Your task to perform on an android device: Add usb-c to the cart on target, then select checkout. Image 0: 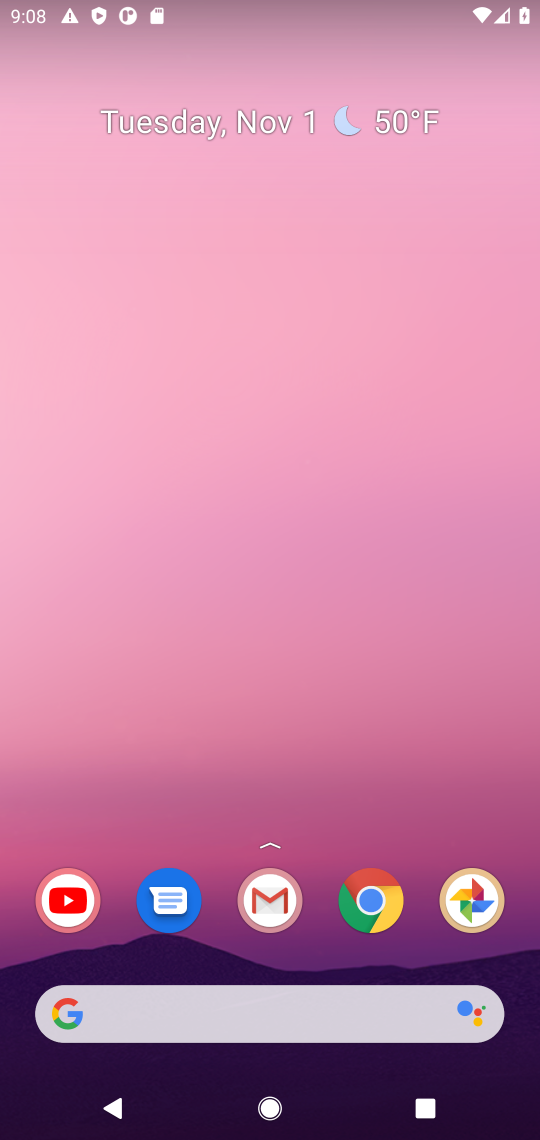
Step 0: click (387, 897)
Your task to perform on an android device: Add usb-c to the cart on target, then select checkout. Image 1: 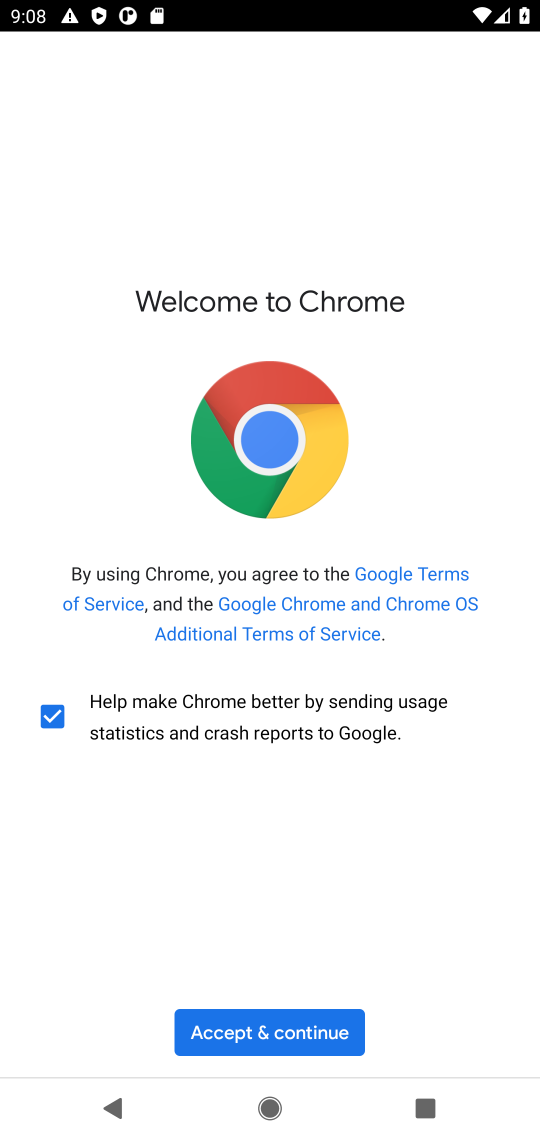
Step 1: click (309, 1014)
Your task to perform on an android device: Add usb-c to the cart on target, then select checkout. Image 2: 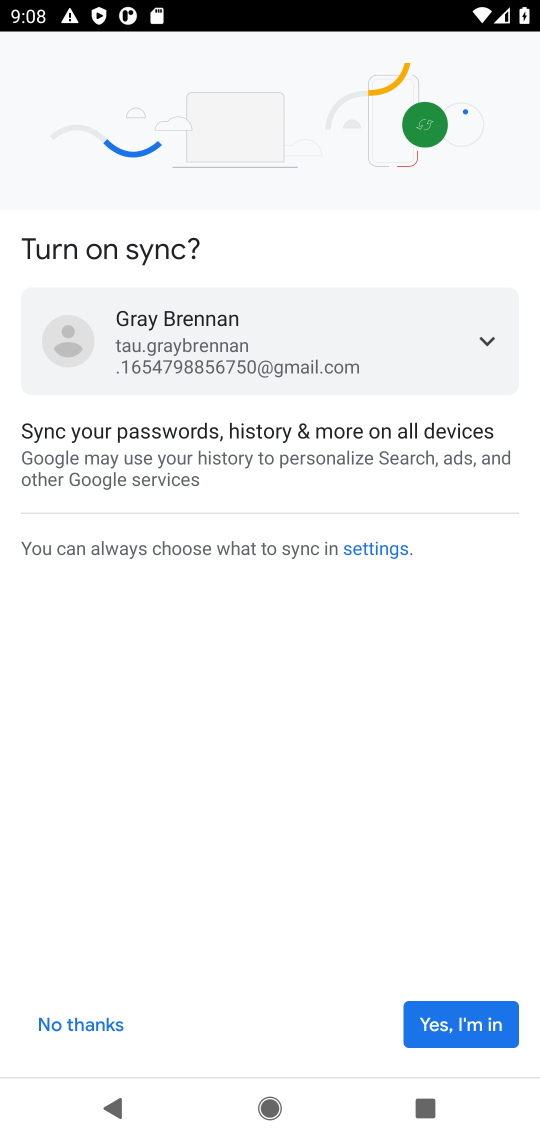
Step 2: click (408, 1028)
Your task to perform on an android device: Add usb-c to the cart on target, then select checkout. Image 3: 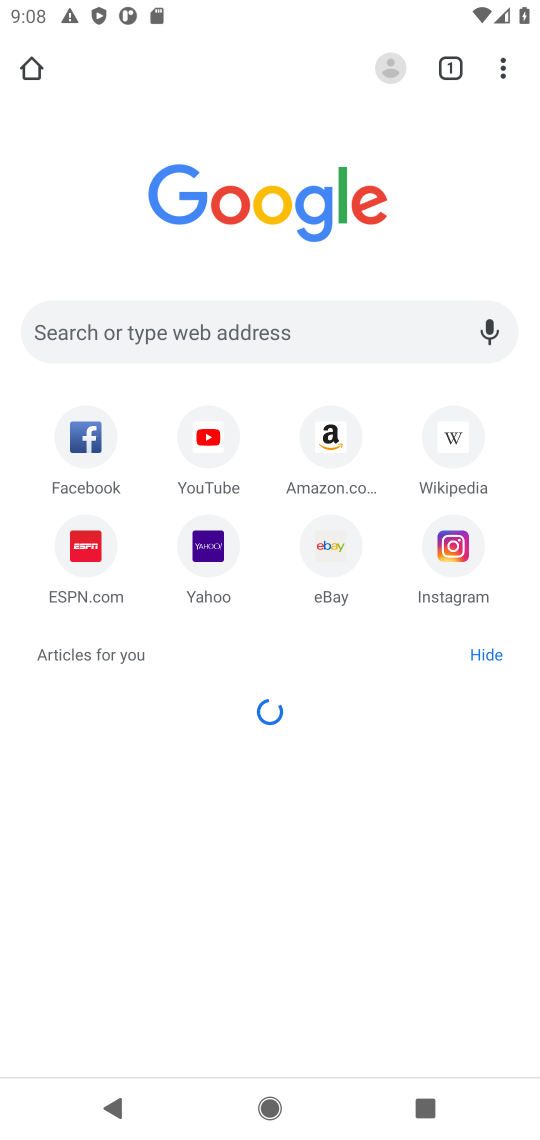
Step 3: click (148, 345)
Your task to perform on an android device: Add usb-c to the cart on target, then select checkout. Image 4: 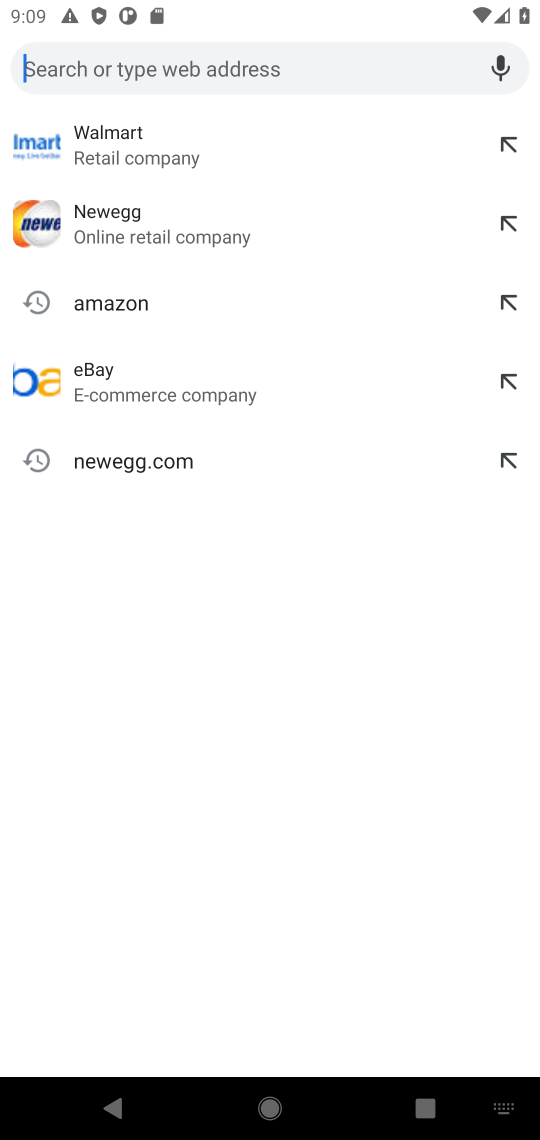
Step 4: type "target"
Your task to perform on an android device: Add usb-c to the cart on target, then select checkout. Image 5: 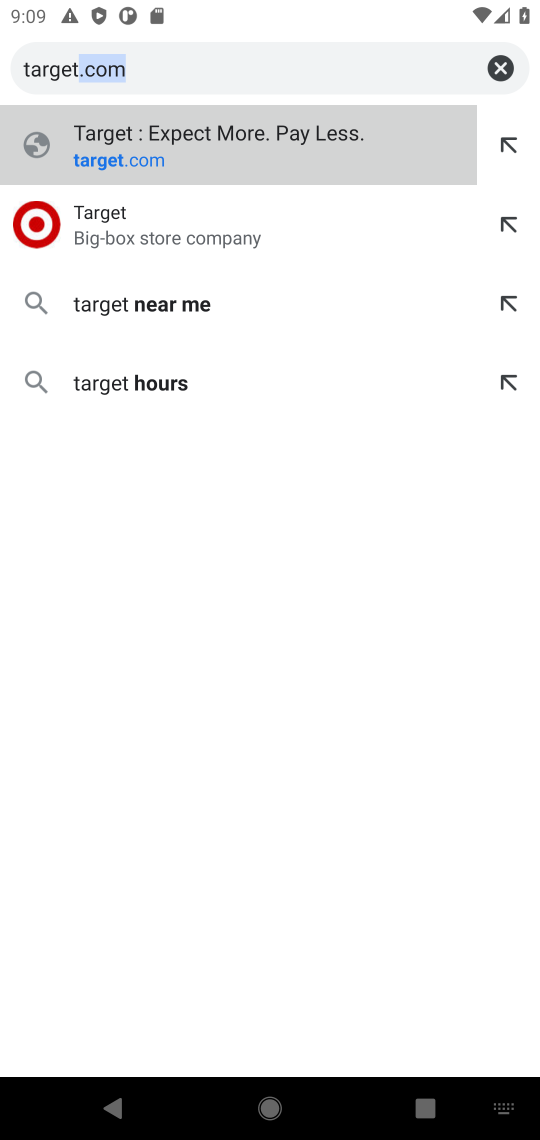
Step 5: click (209, 245)
Your task to perform on an android device: Add usb-c to the cart on target, then select checkout. Image 6: 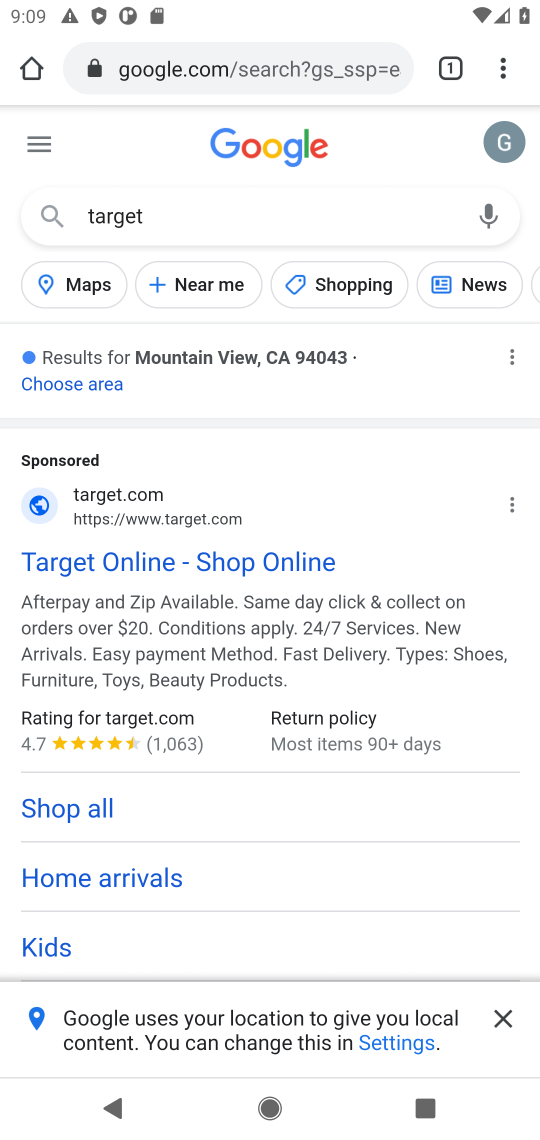
Step 6: click (160, 556)
Your task to perform on an android device: Add usb-c to the cart on target, then select checkout. Image 7: 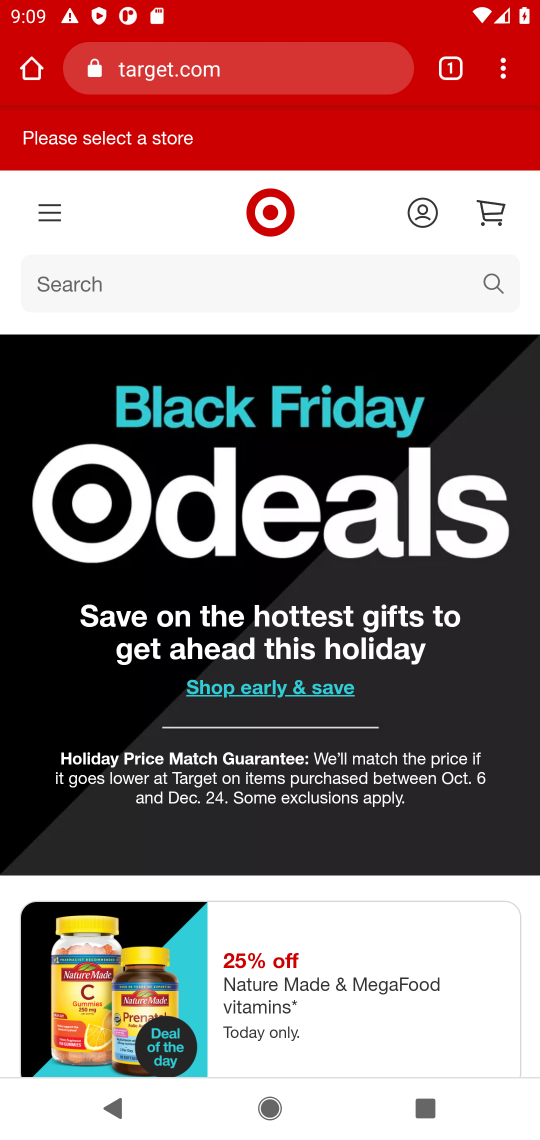
Step 7: click (206, 286)
Your task to perform on an android device: Add usb-c to the cart on target, then select checkout. Image 8: 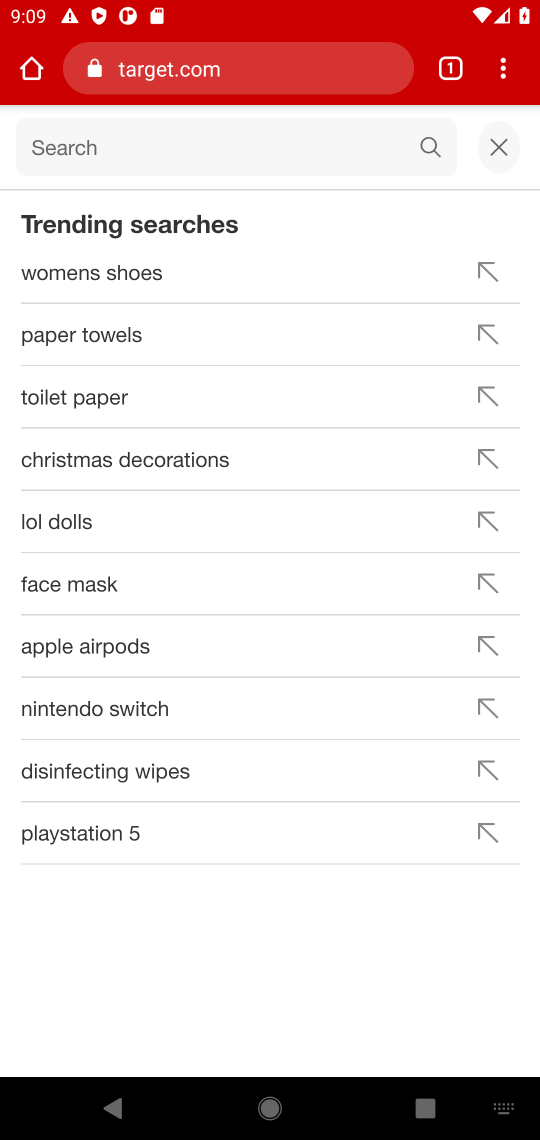
Step 8: type "usb-c"
Your task to perform on an android device: Add usb-c to the cart on target, then select checkout. Image 9: 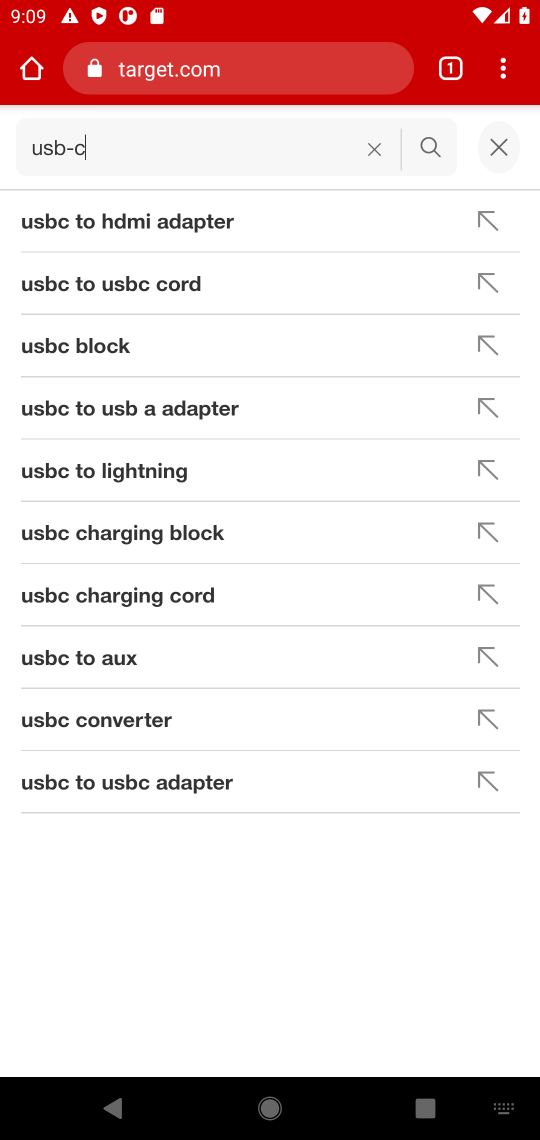
Step 9: click (425, 145)
Your task to perform on an android device: Add usb-c to the cart on target, then select checkout. Image 10: 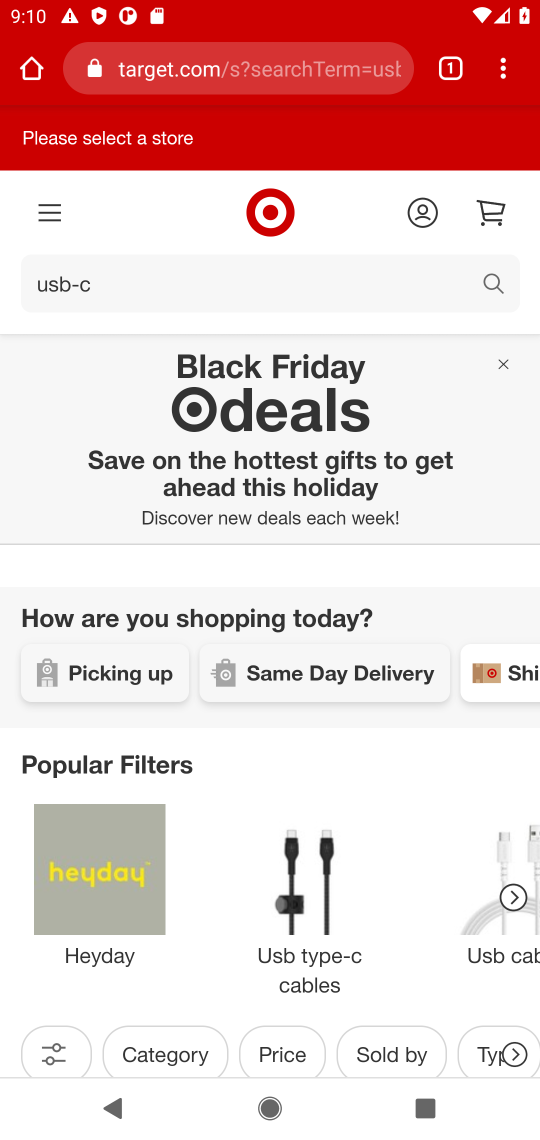
Step 10: drag from (236, 771) to (281, 344)
Your task to perform on an android device: Add usb-c to the cart on target, then select checkout. Image 11: 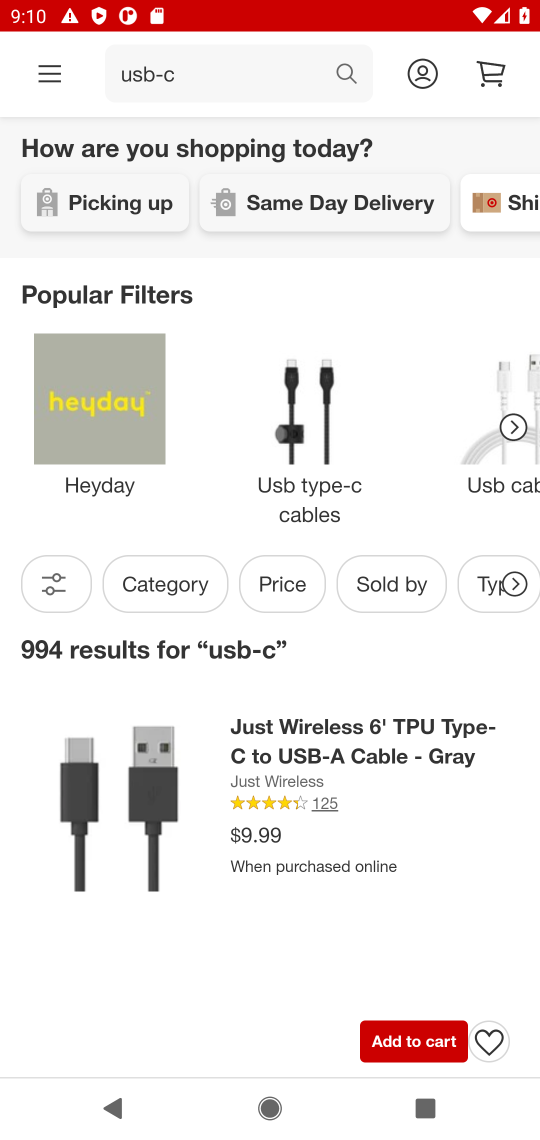
Step 11: click (295, 510)
Your task to perform on an android device: Add usb-c to the cart on target, then select checkout. Image 12: 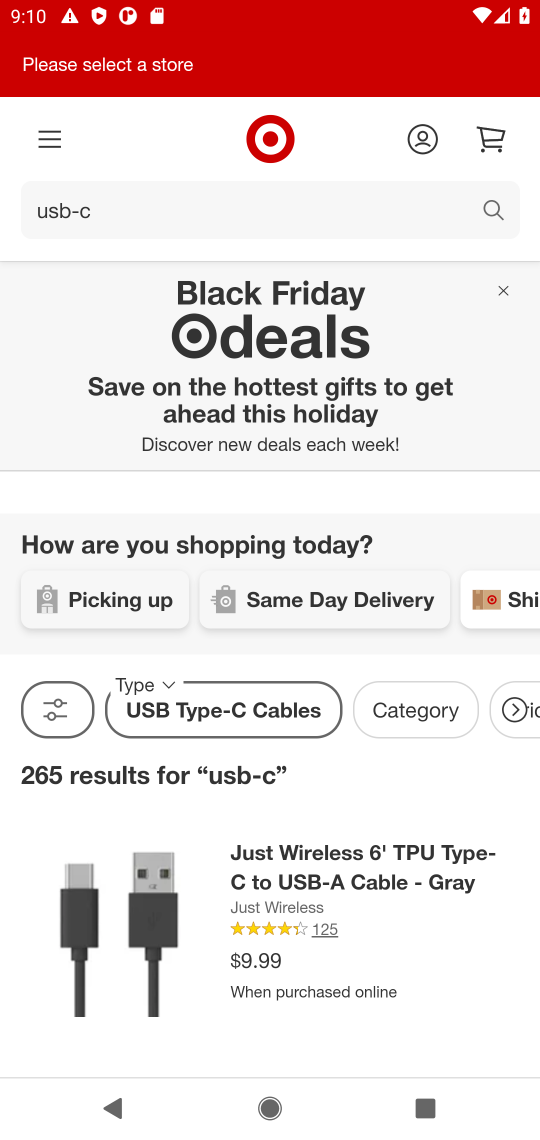
Step 12: click (419, 860)
Your task to perform on an android device: Add usb-c to the cart on target, then select checkout. Image 13: 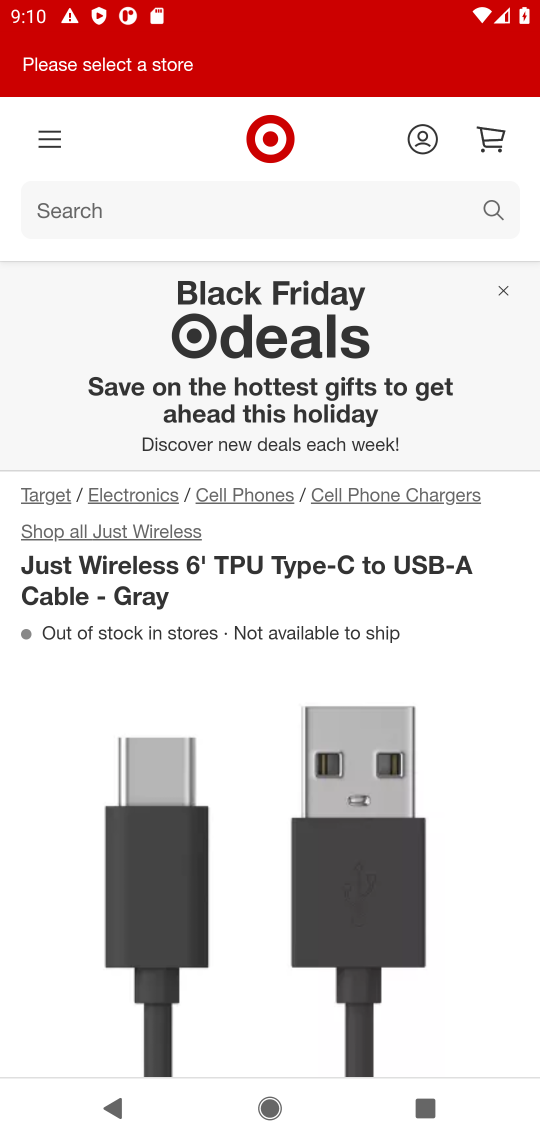
Step 13: drag from (419, 860) to (451, 483)
Your task to perform on an android device: Add usb-c to the cart on target, then select checkout. Image 14: 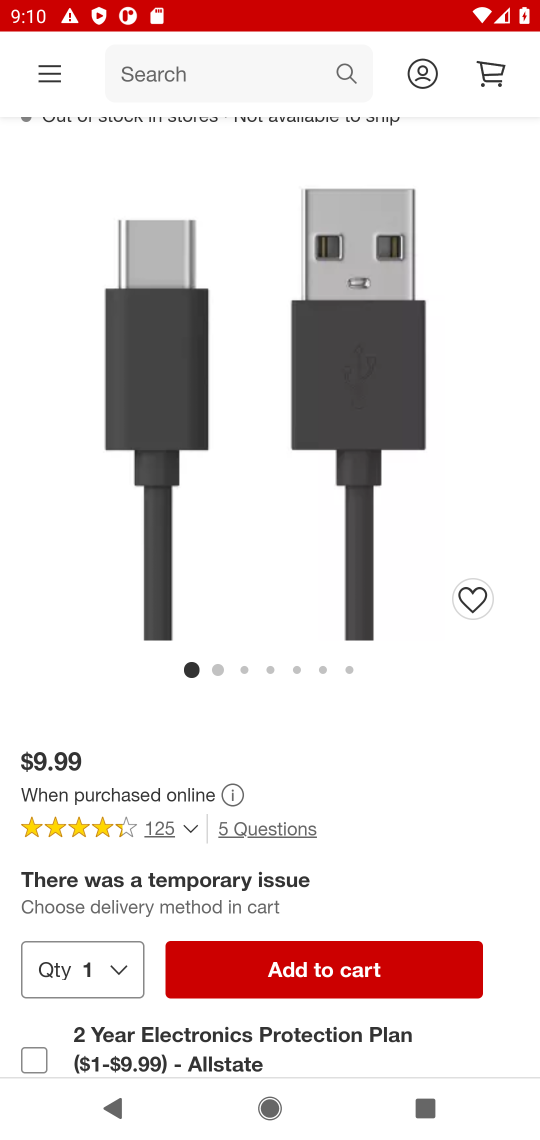
Step 14: click (336, 958)
Your task to perform on an android device: Add usb-c to the cart on target, then select checkout. Image 15: 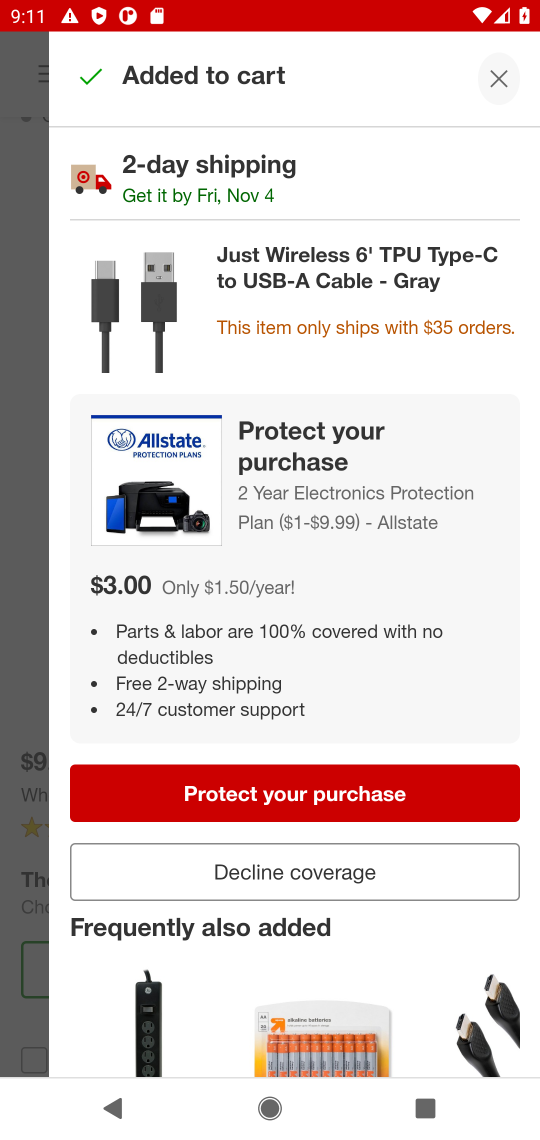
Step 15: click (498, 79)
Your task to perform on an android device: Add usb-c to the cart on target, then select checkout. Image 16: 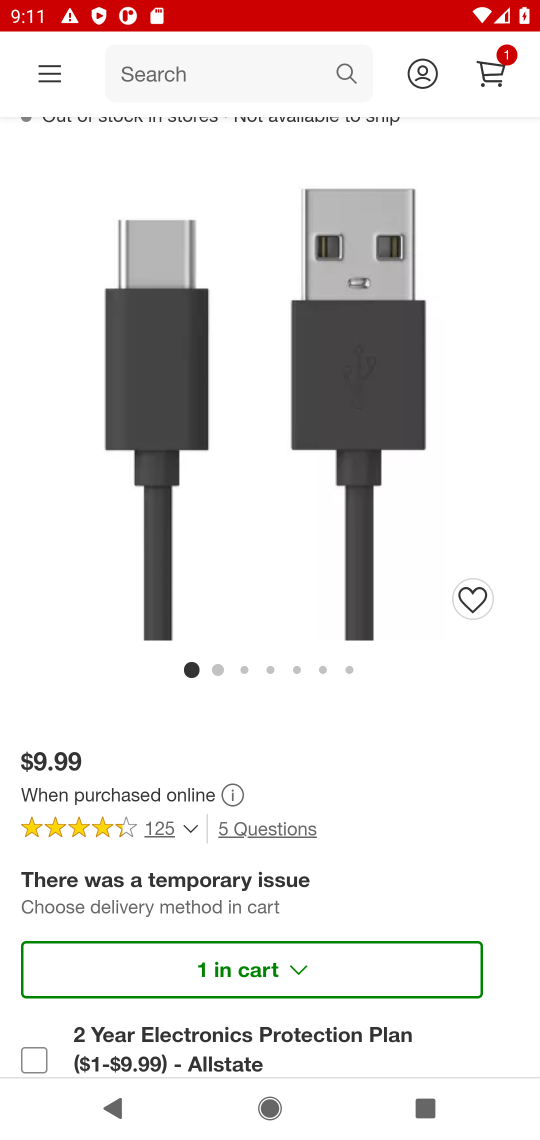
Step 16: click (498, 79)
Your task to perform on an android device: Add usb-c to the cart on target, then select checkout. Image 17: 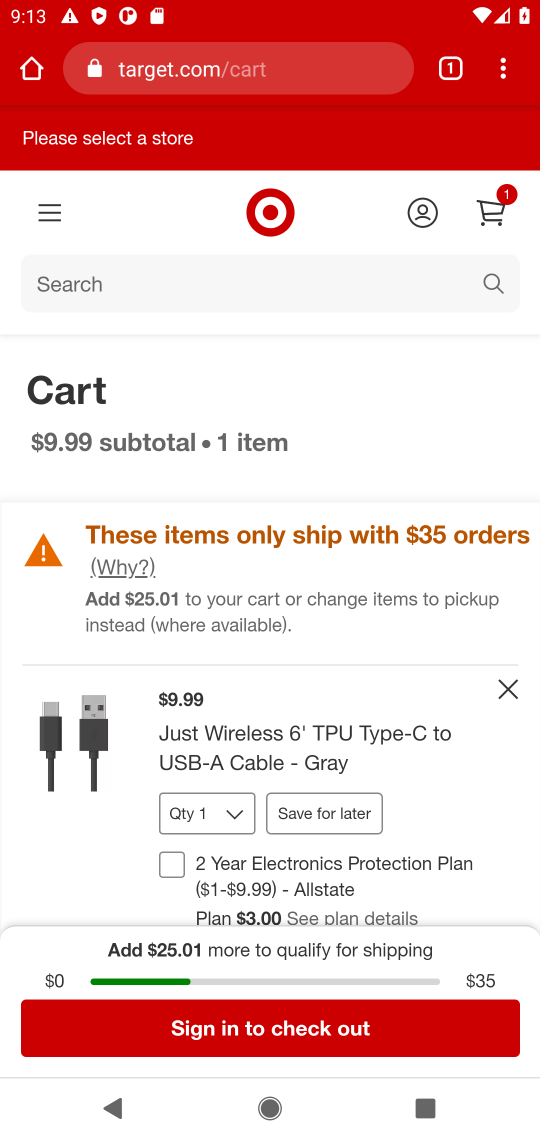
Step 17: task complete